Your task to perform on an android device: open app "Reddit" (install if not already installed) Image 0: 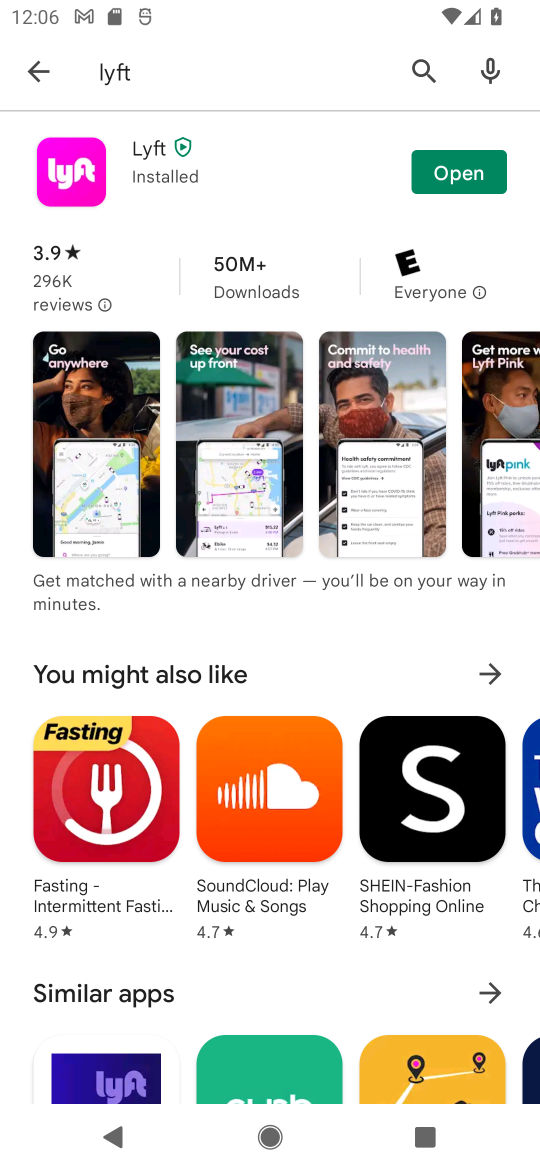
Step 0: click (416, 74)
Your task to perform on an android device: open app "Reddit" (install if not already installed) Image 1: 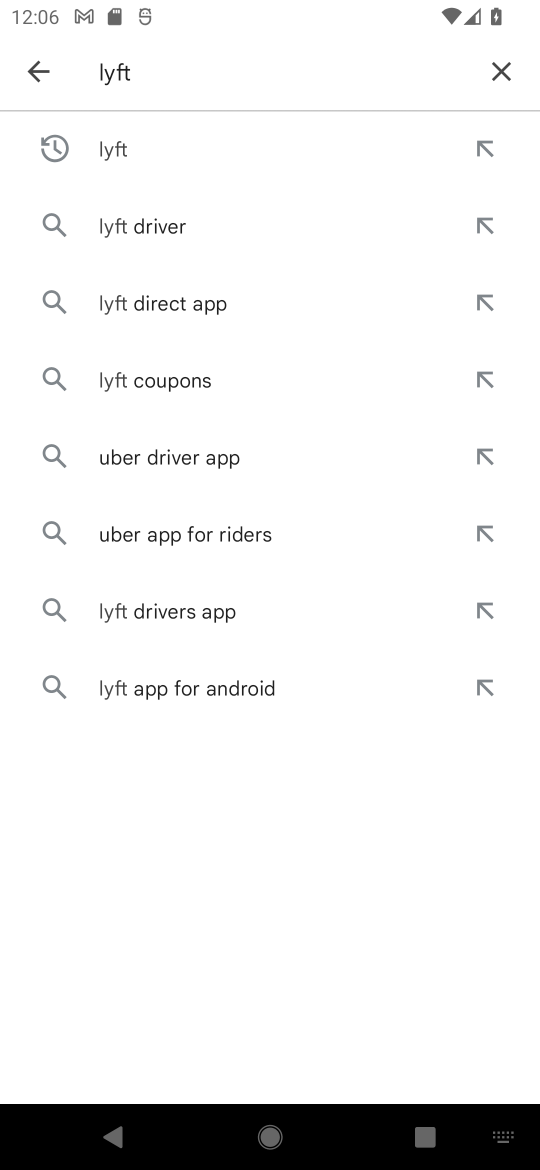
Step 1: click (484, 80)
Your task to perform on an android device: open app "Reddit" (install if not already installed) Image 2: 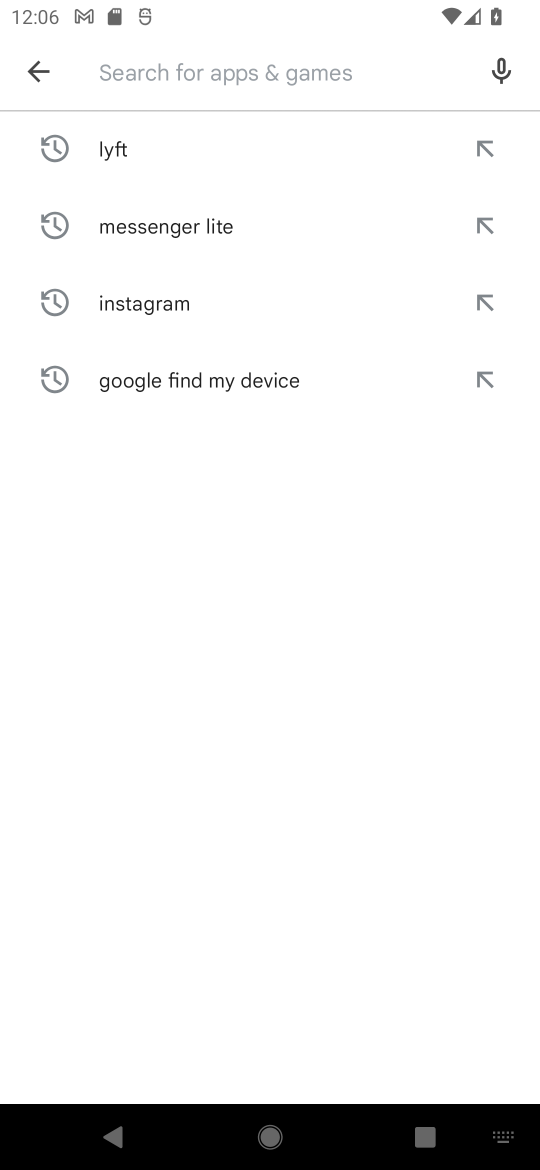
Step 2: type "Reddit"
Your task to perform on an android device: open app "Reddit" (install if not already installed) Image 3: 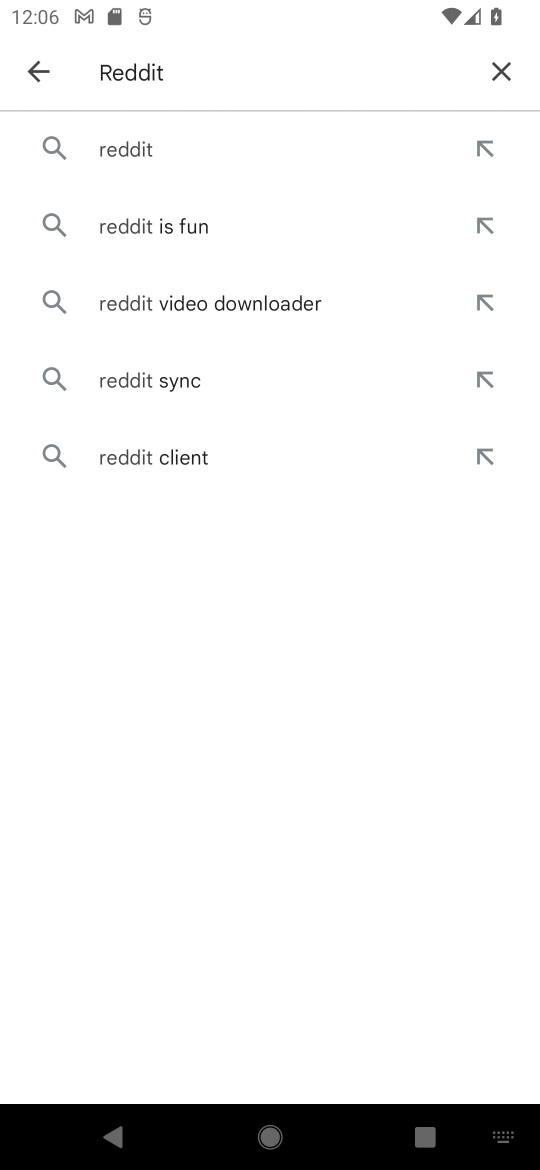
Step 3: click (111, 135)
Your task to perform on an android device: open app "Reddit" (install if not already installed) Image 4: 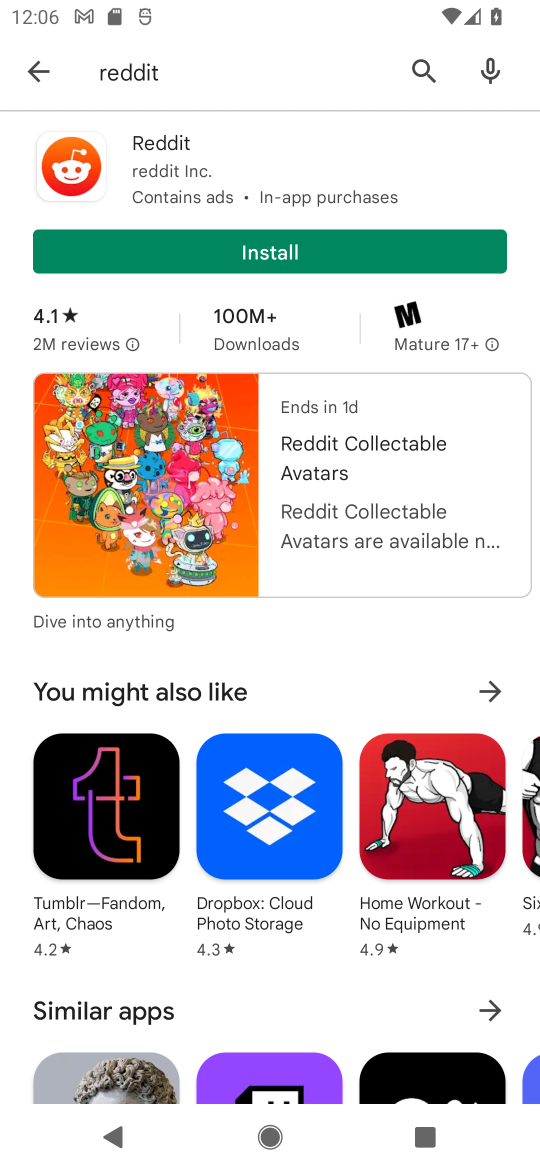
Step 4: click (160, 253)
Your task to perform on an android device: open app "Reddit" (install if not already installed) Image 5: 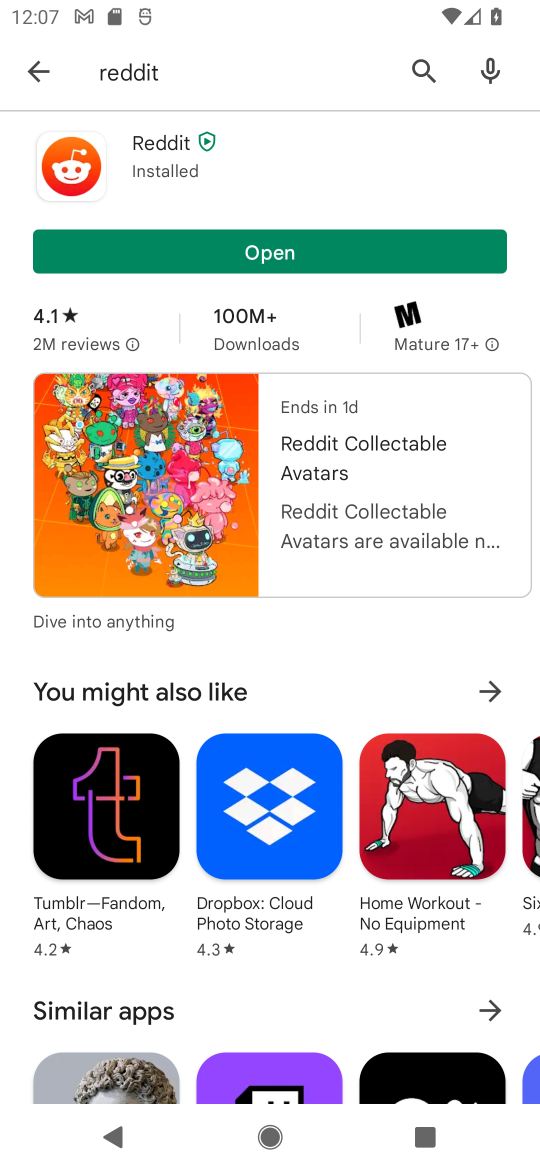
Step 5: click (403, 245)
Your task to perform on an android device: open app "Reddit" (install if not already installed) Image 6: 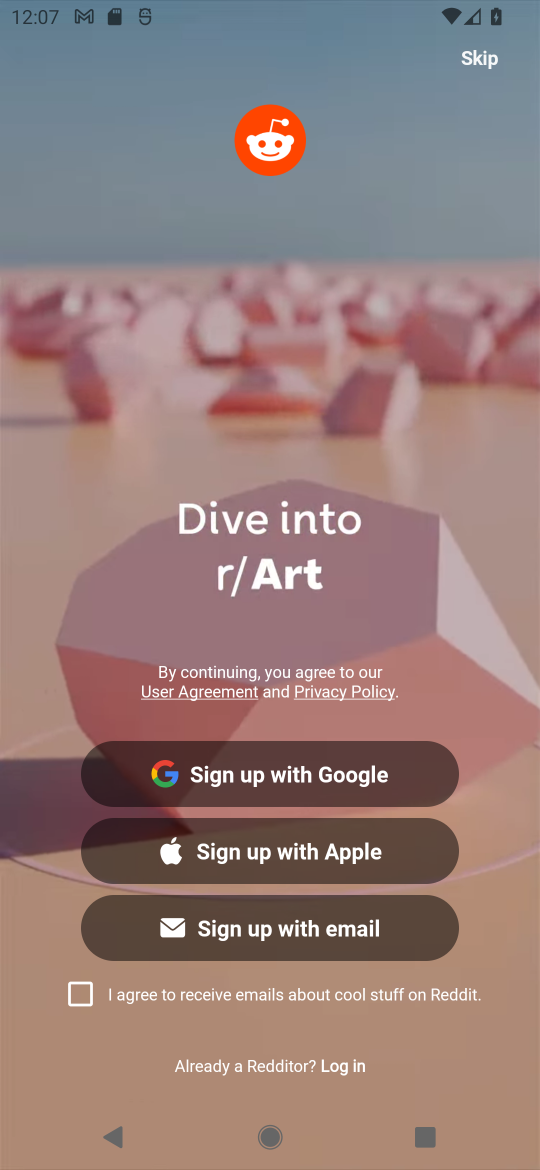
Step 6: task complete